Your task to perform on an android device: snooze an email in the gmail app Image 0: 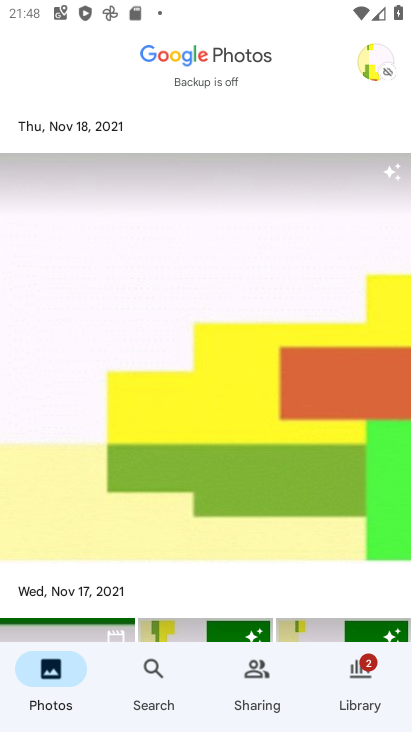
Step 0: press home button
Your task to perform on an android device: snooze an email in the gmail app Image 1: 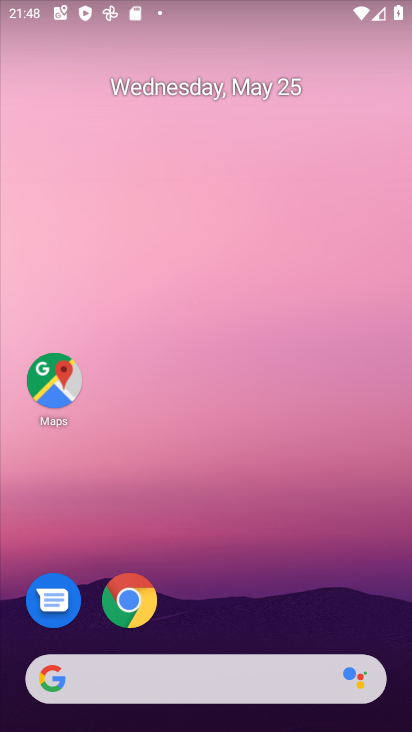
Step 1: drag from (346, 587) to (330, 191)
Your task to perform on an android device: snooze an email in the gmail app Image 2: 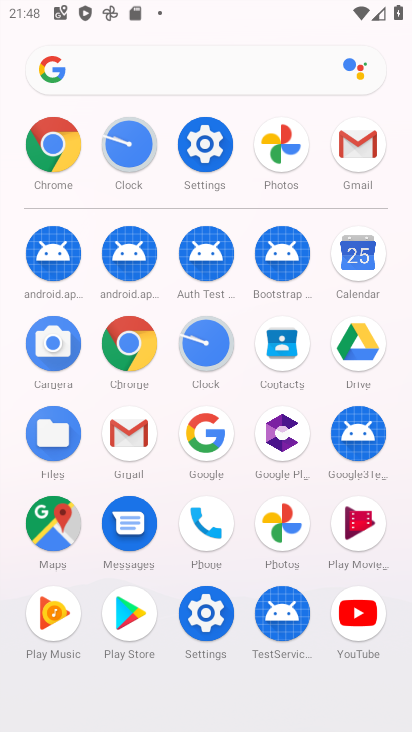
Step 2: click (124, 455)
Your task to perform on an android device: snooze an email in the gmail app Image 3: 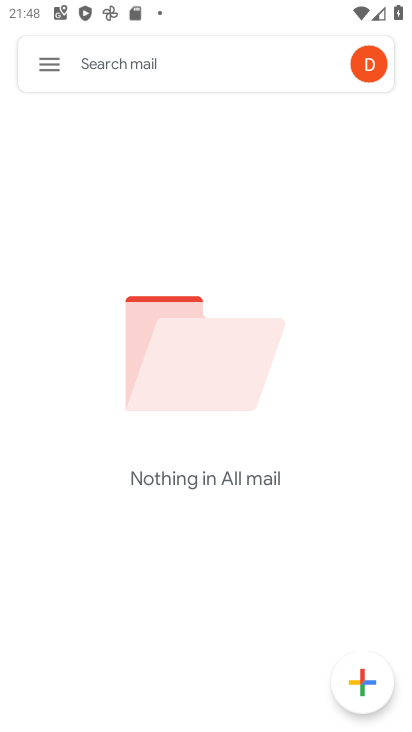
Step 3: click (62, 67)
Your task to perform on an android device: snooze an email in the gmail app Image 4: 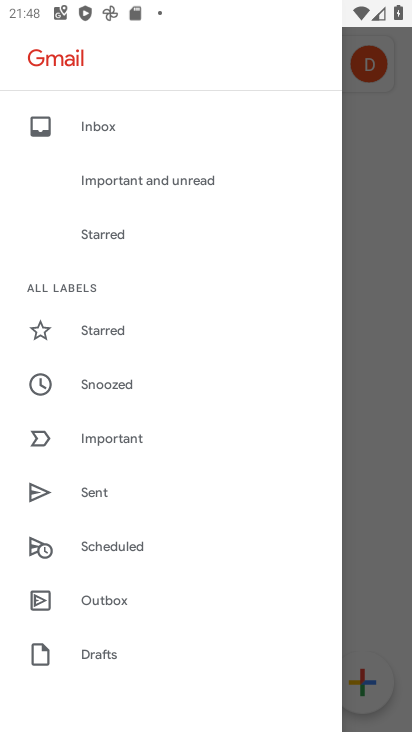
Step 4: click (180, 393)
Your task to perform on an android device: snooze an email in the gmail app Image 5: 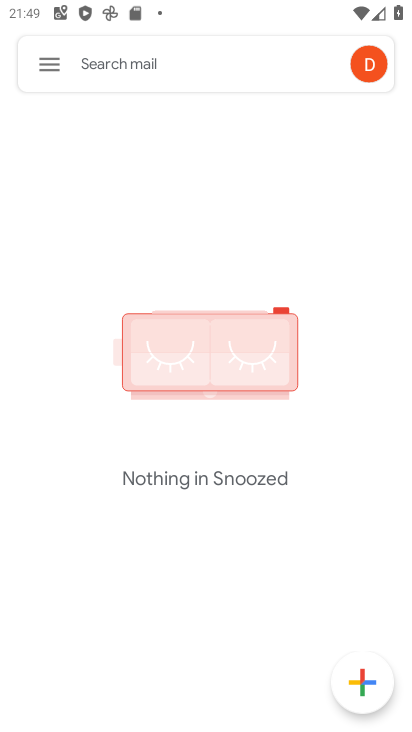
Step 5: click (56, 78)
Your task to perform on an android device: snooze an email in the gmail app Image 6: 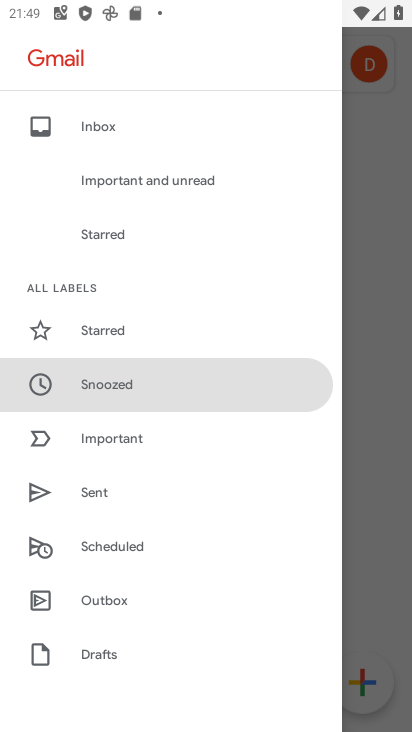
Step 6: click (355, 260)
Your task to perform on an android device: snooze an email in the gmail app Image 7: 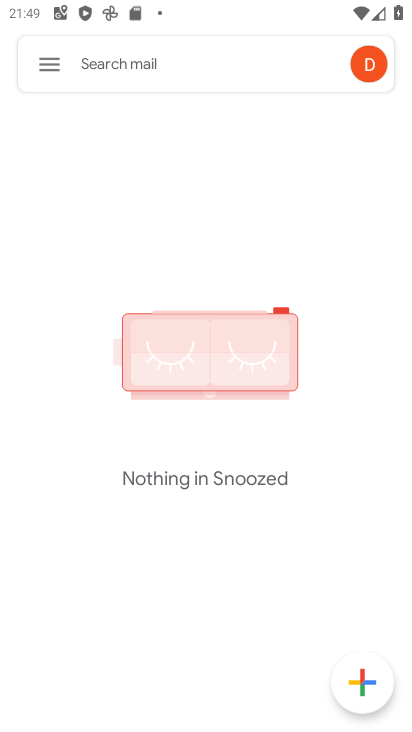
Step 7: task complete